Your task to perform on an android device: Open settings on Google Maps Image 0: 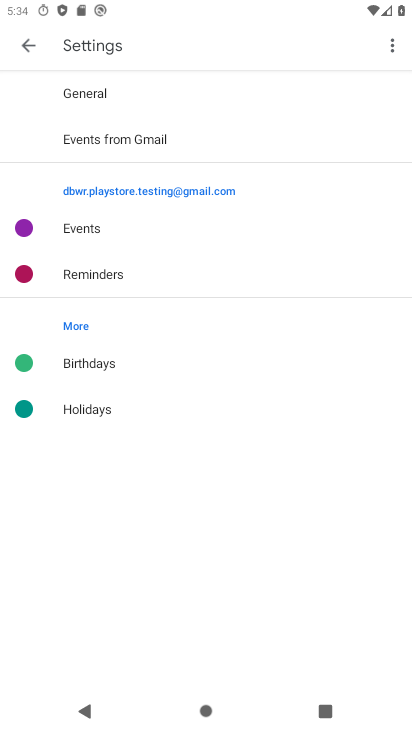
Step 0: press home button
Your task to perform on an android device: Open settings on Google Maps Image 1: 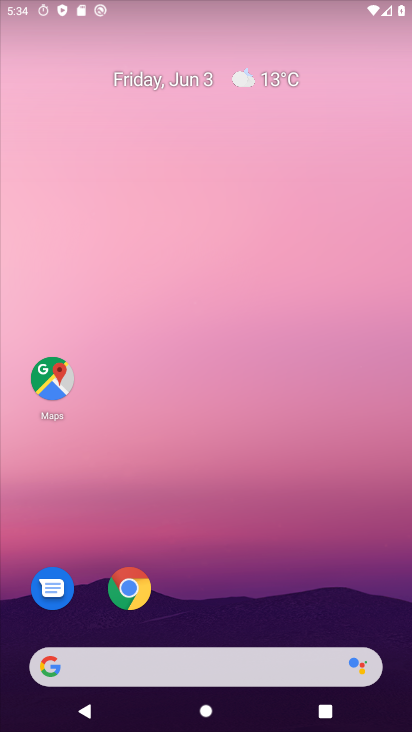
Step 1: drag from (222, 590) to (165, 136)
Your task to perform on an android device: Open settings on Google Maps Image 2: 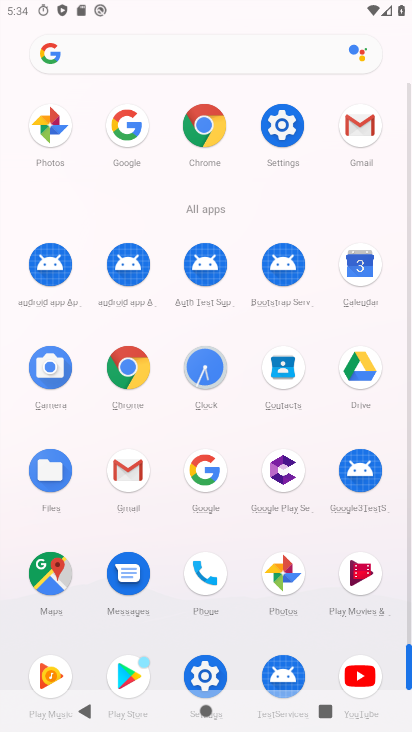
Step 2: click (63, 581)
Your task to perform on an android device: Open settings on Google Maps Image 3: 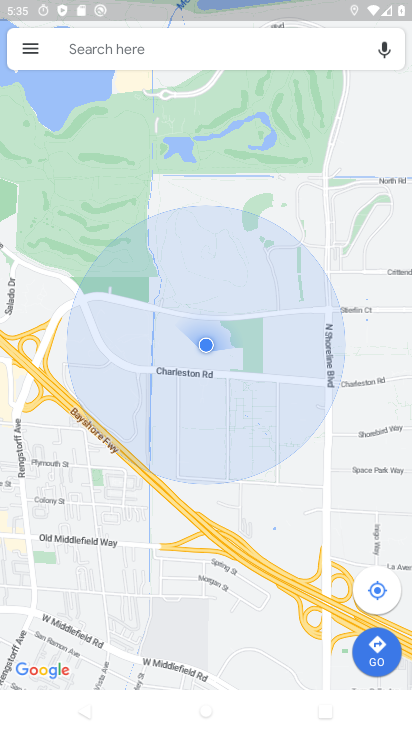
Step 3: click (19, 50)
Your task to perform on an android device: Open settings on Google Maps Image 4: 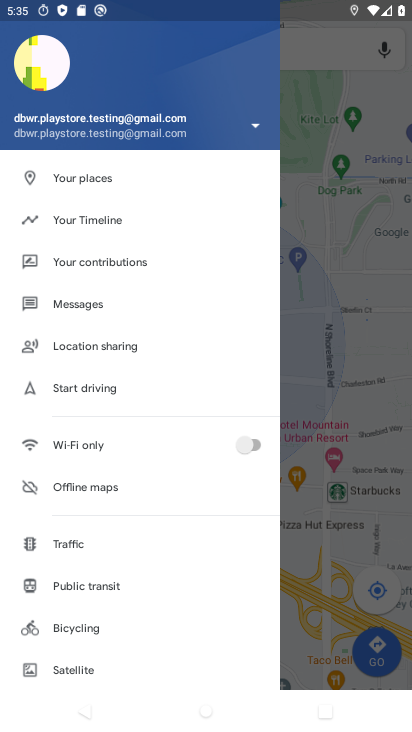
Step 4: drag from (101, 531) to (130, 301)
Your task to perform on an android device: Open settings on Google Maps Image 5: 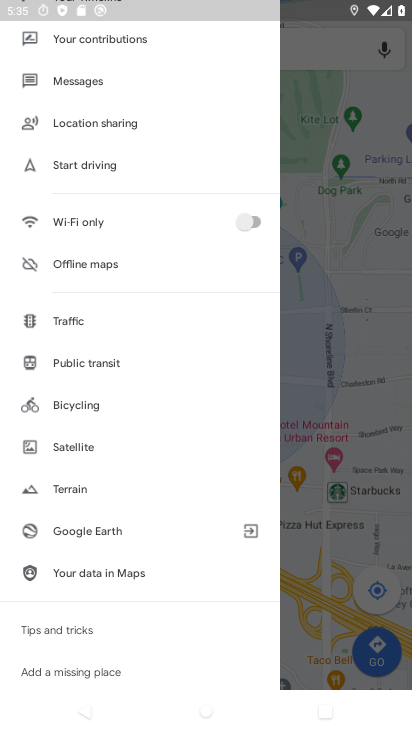
Step 5: drag from (118, 535) to (159, 221)
Your task to perform on an android device: Open settings on Google Maps Image 6: 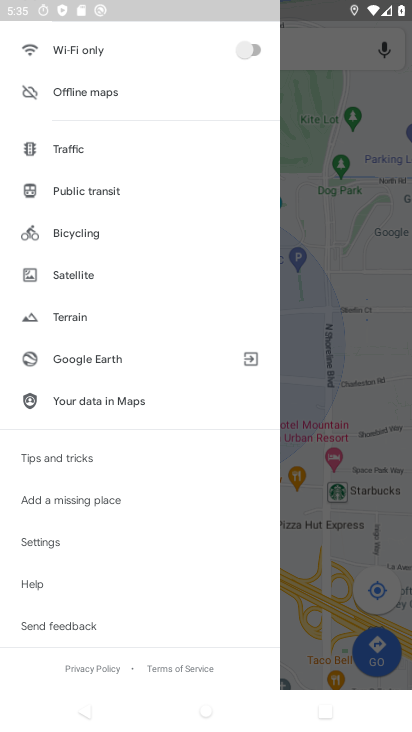
Step 6: click (65, 553)
Your task to perform on an android device: Open settings on Google Maps Image 7: 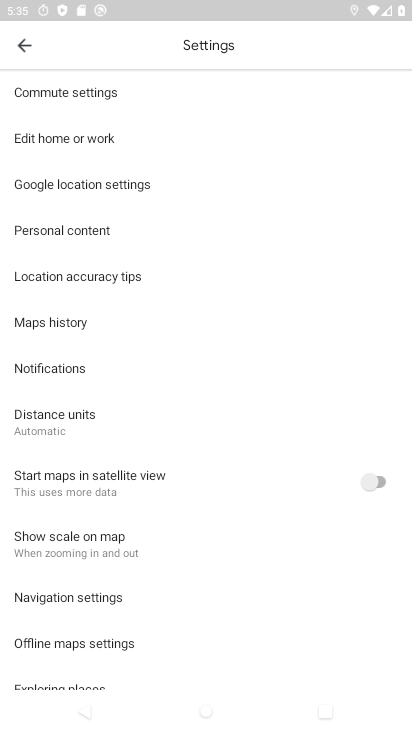
Step 7: task complete